Your task to perform on an android device: turn on sleep mode Image 0: 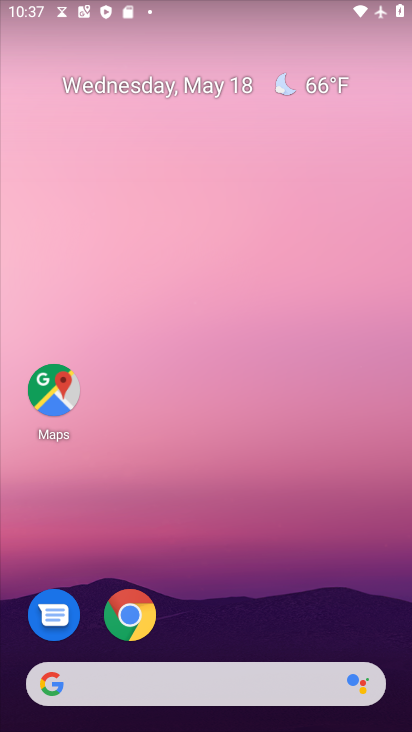
Step 0: drag from (233, 525) to (233, 1)
Your task to perform on an android device: turn on sleep mode Image 1: 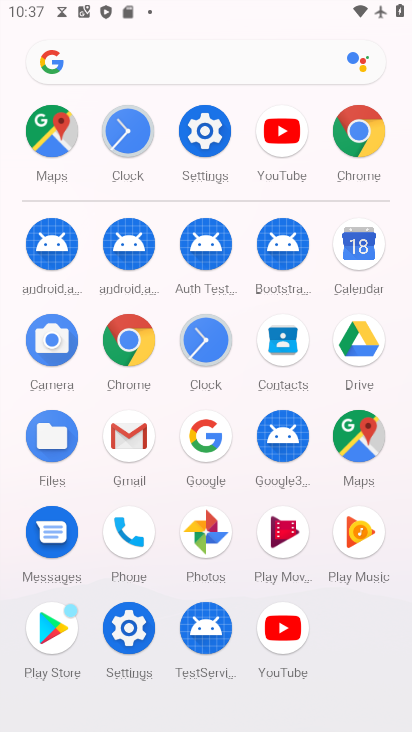
Step 1: drag from (0, 541) to (17, 185)
Your task to perform on an android device: turn on sleep mode Image 2: 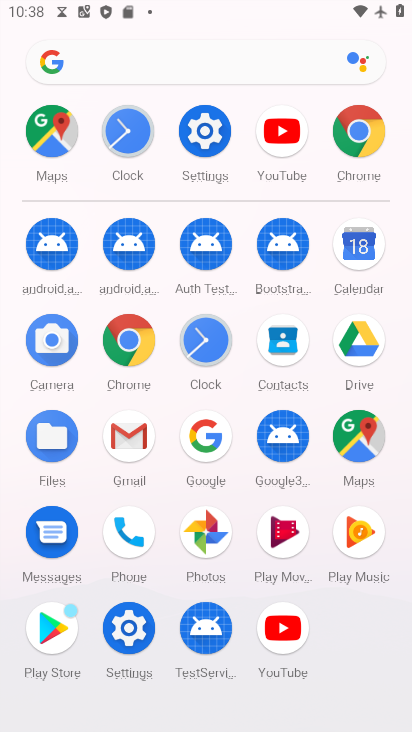
Step 2: click (126, 628)
Your task to perform on an android device: turn on sleep mode Image 3: 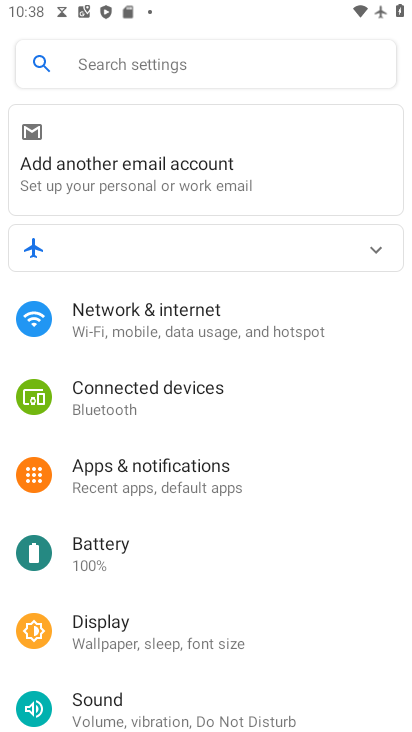
Step 3: click (173, 638)
Your task to perform on an android device: turn on sleep mode Image 4: 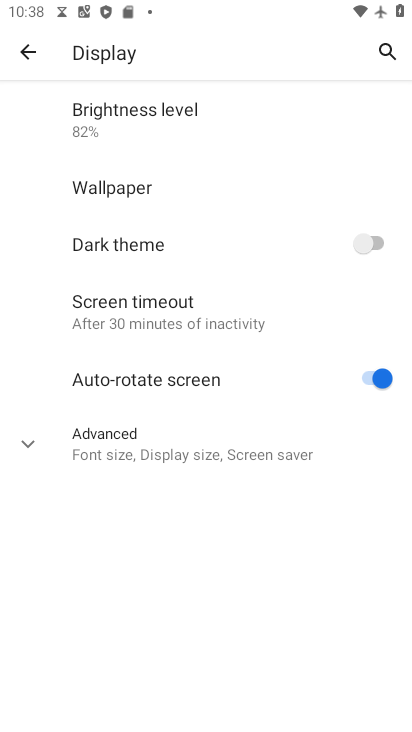
Step 4: click (46, 433)
Your task to perform on an android device: turn on sleep mode Image 5: 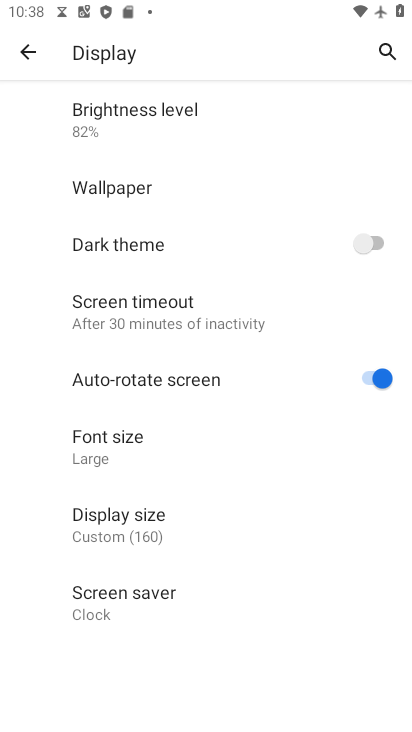
Step 5: task complete